Your task to perform on an android device: Go to network settings Image 0: 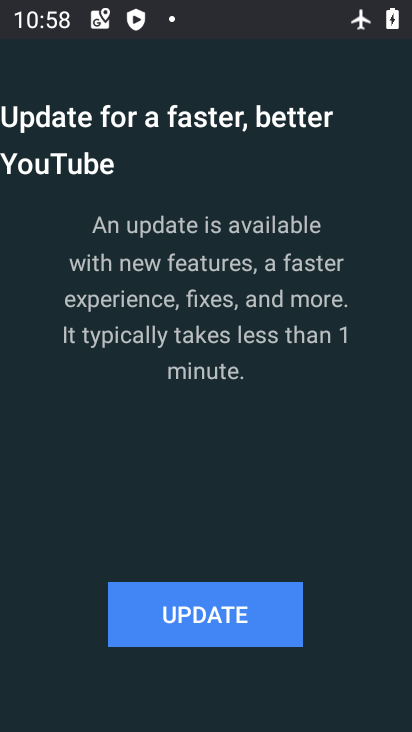
Step 0: press home button
Your task to perform on an android device: Go to network settings Image 1: 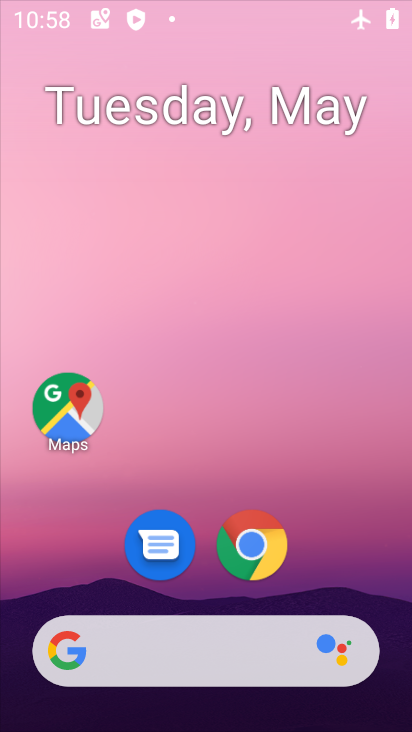
Step 1: drag from (212, 682) to (267, 67)
Your task to perform on an android device: Go to network settings Image 2: 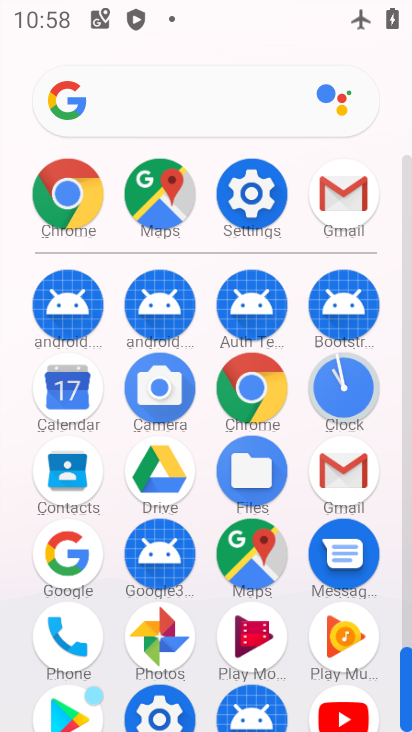
Step 2: click (267, 204)
Your task to perform on an android device: Go to network settings Image 3: 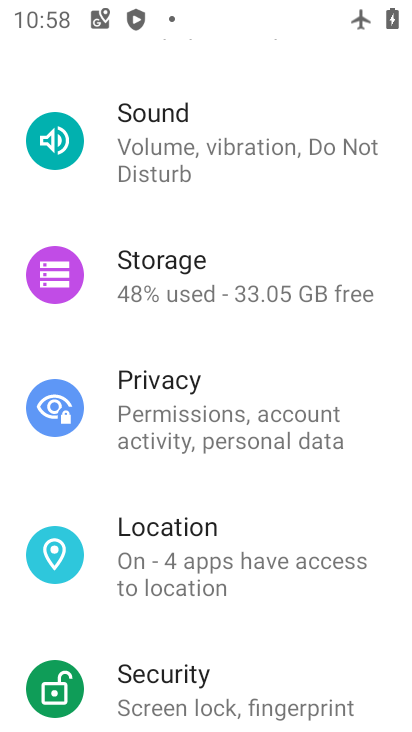
Step 3: drag from (183, 232) to (120, 599)
Your task to perform on an android device: Go to network settings Image 4: 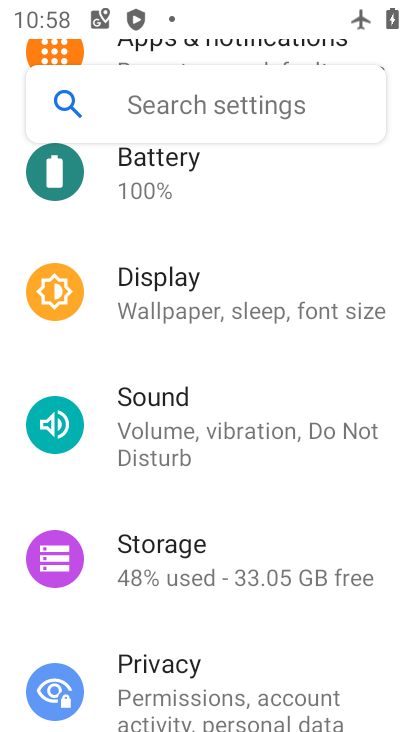
Step 4: drag from (123, 339) to (109, 668)
Your task to perform on an android device: Go to network settings Image 5: 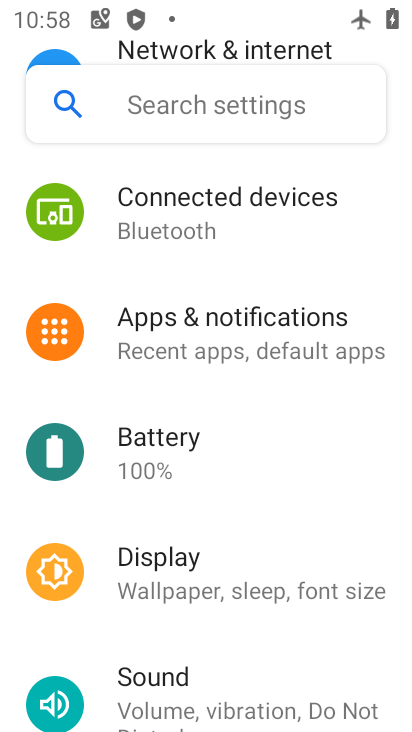
Step 5: drag from (155, 368) to (149, 714)
Your task to perform on an android device: Go to network settings Image 6: 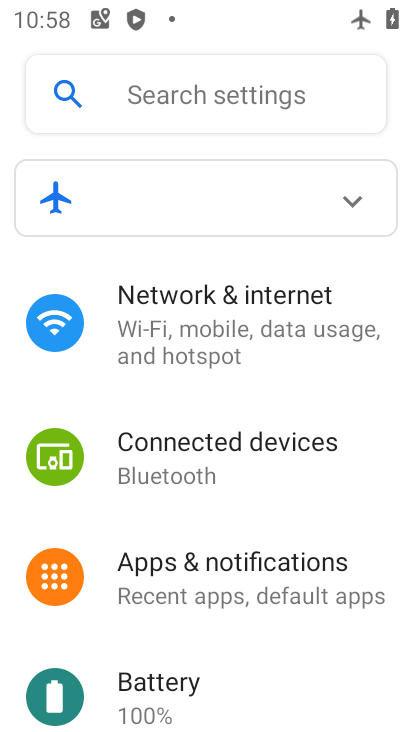
Step 6: click (209, 361)
Your task to perform on an android device: Go to network settings Image 7: 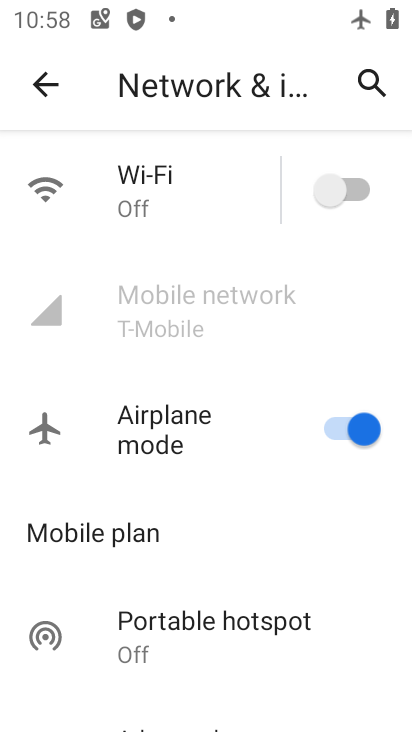
Step 7: click (185, 322)
Your task to perform on an android device: Go to network settings Image 8: 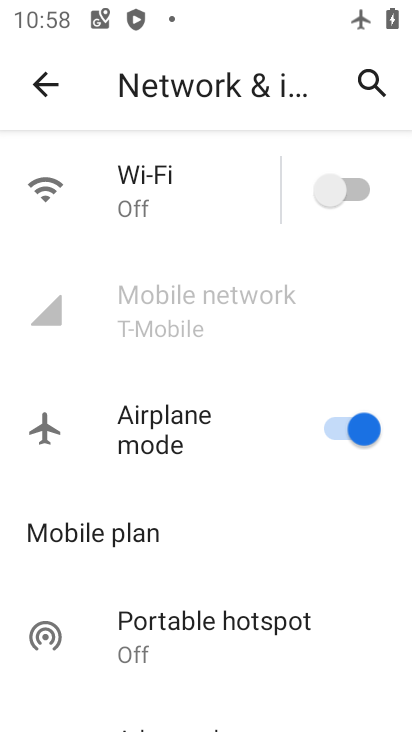
Step 8: task complete